Your task to perform on an android device: toggle notifications settings in the gmail app Image 0: 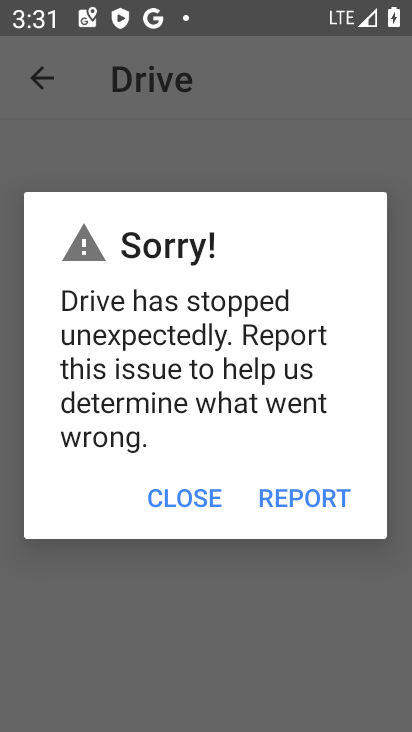
Step 0: press home button
Your task to perform on an android device: toggle notifications settings in the gmail app Image 1: 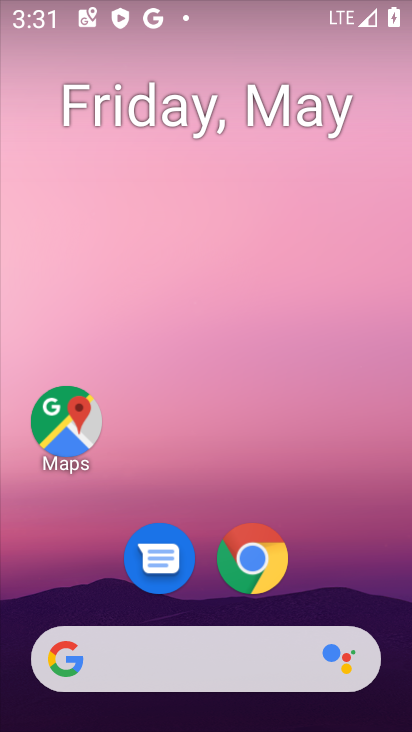
Step 1: drag from (213, 652) to (281, 106)
Your task to perform on an android device: toggle notifications settings in the gmail app Image 2: 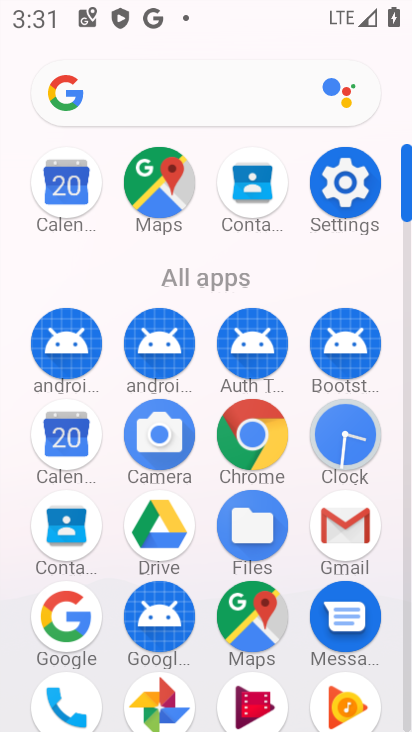
Step 2: click (339, 529)
Your task to perform on an android device: toggle notifications settings in the gmail app Image 3: 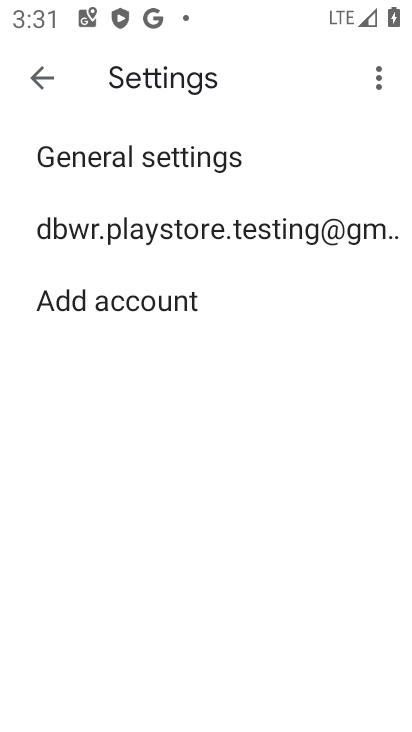
Step 3: click (245, 222)
Your task to perform on an android device: toggle notifications settings in the gmail app Image 4: 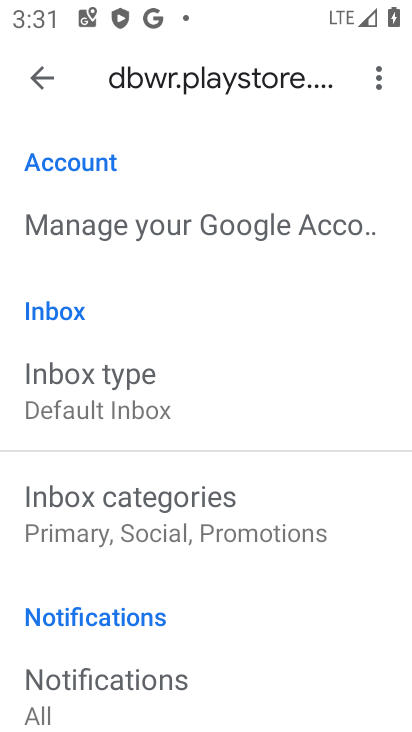
Step 4: drag from (206, 457) to (334, 150)
Your task to perform on an android device: toggle notifications settings in the gmail app Image 5: 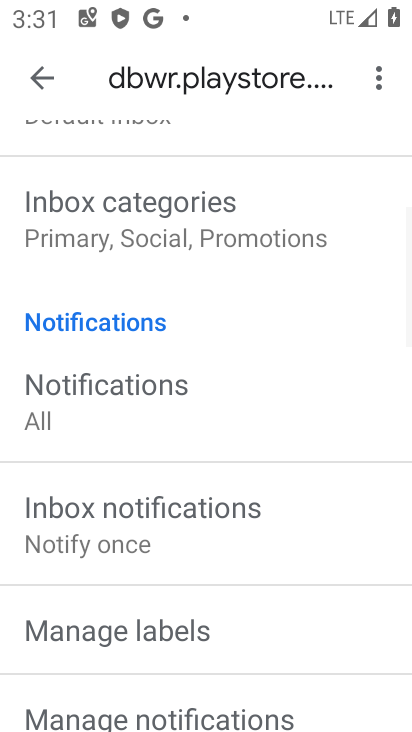
Step 5: click (132, 395)
Your task to perform on an android device: toggle notifications settings in the gmail app Image 6: 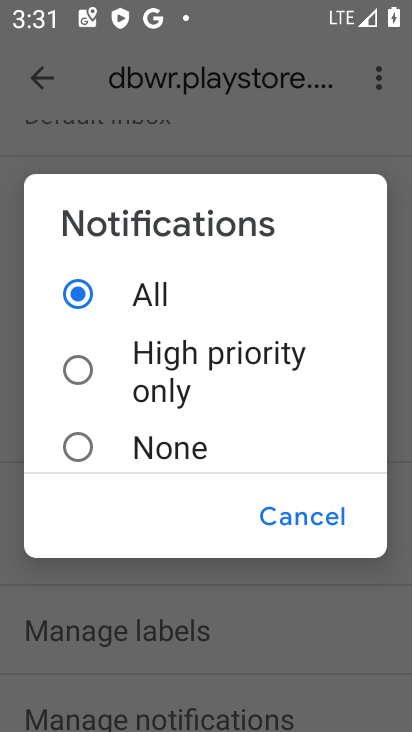
Step 6: click (70, 453)
Your task to perform on an android device: toggle notifications settings in the gmail app Image 7: 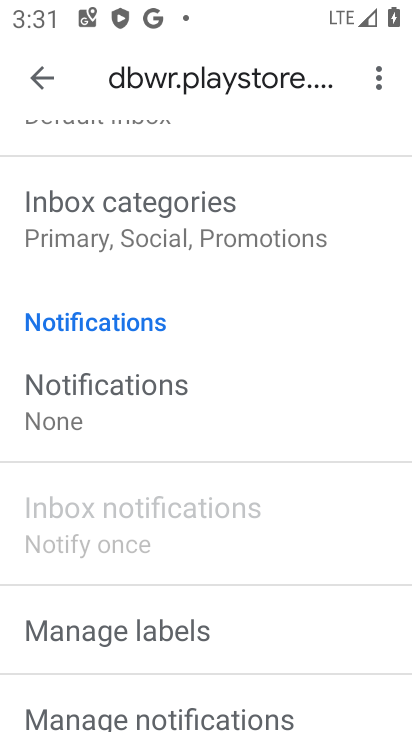
Step 7: task complete